Your task to perform on an android device: Search for pizza restaurants on Maps Image 0: 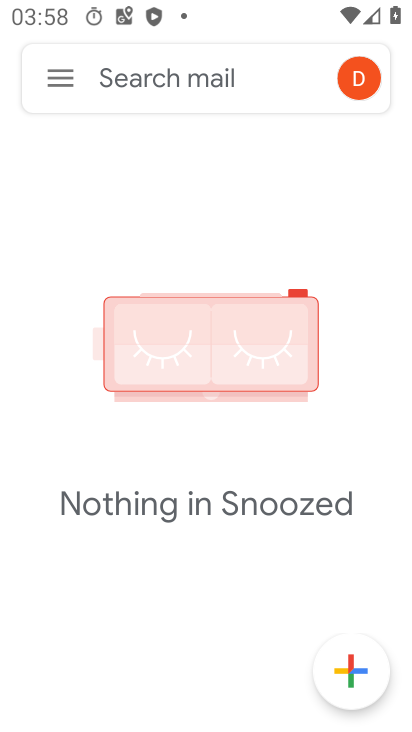
Step 0: press home button
Your task to perform on an android device: Search for pizza restaurants on Maps Image 1: 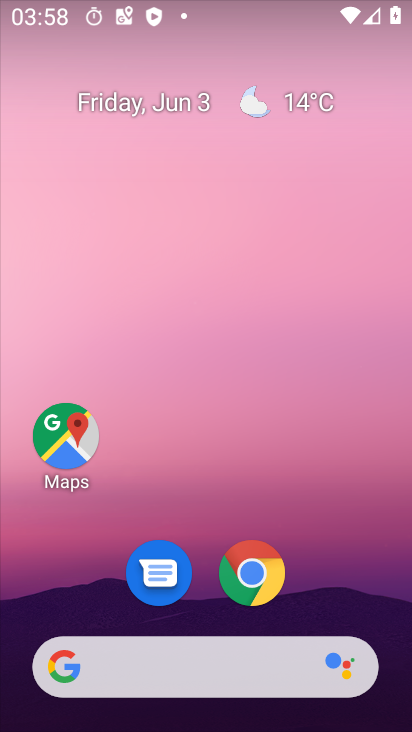
Step 1: drag from (195, 677) to (266, 1)
Your task to perform on an android device: Search for pizza restaurants on Maps Image 2: 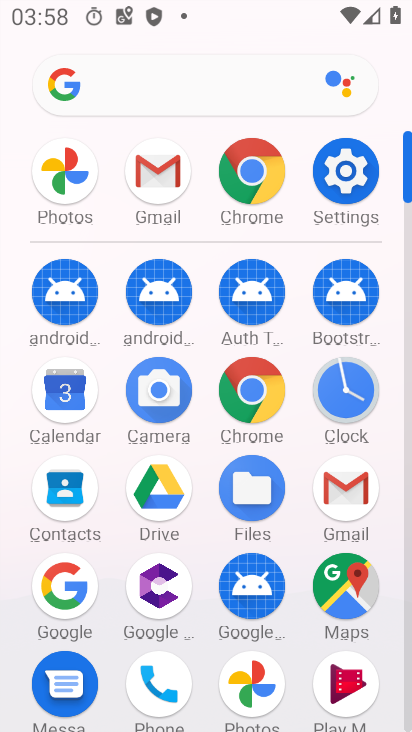
Step 2: click (338, 596)
Your task to perform on an android device: Search for pizza restaurants on Maps Image 3: 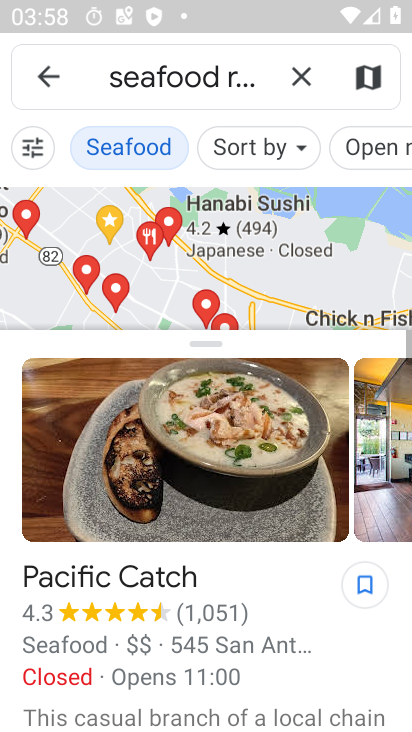
Step 3: click (307, 82)
Your task to perform on an android device: Search for pizza restaurants on Maps Image 4: 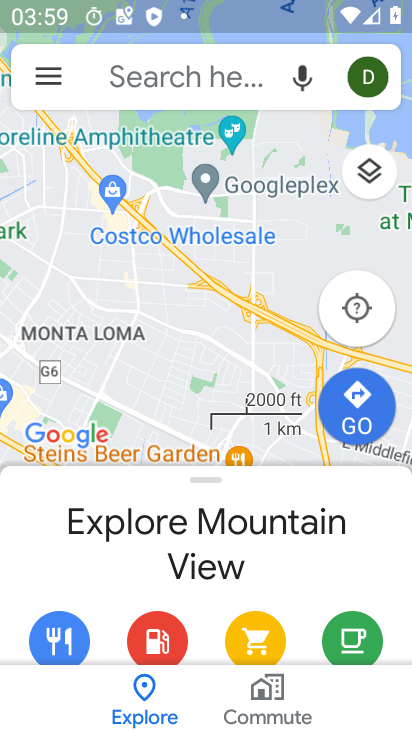
Step 4: click (214, 80)
Your task to perform on an android device: Search for pizza restaurants on Maps Image 5: 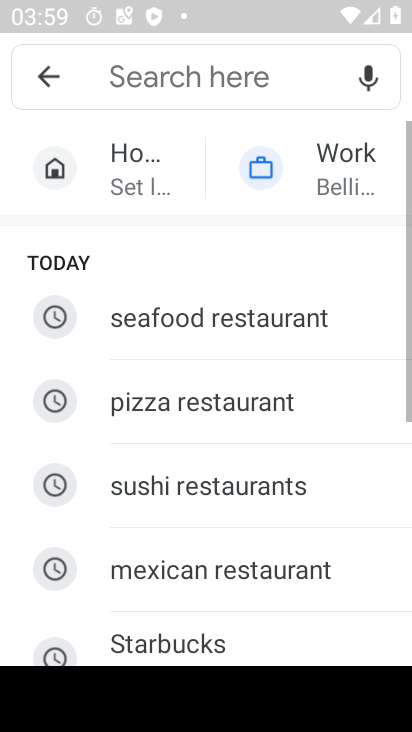
Step 5: click (223, 414)
Your task to perform on an android device: Search for pizza restaurants on Maps Image 6: 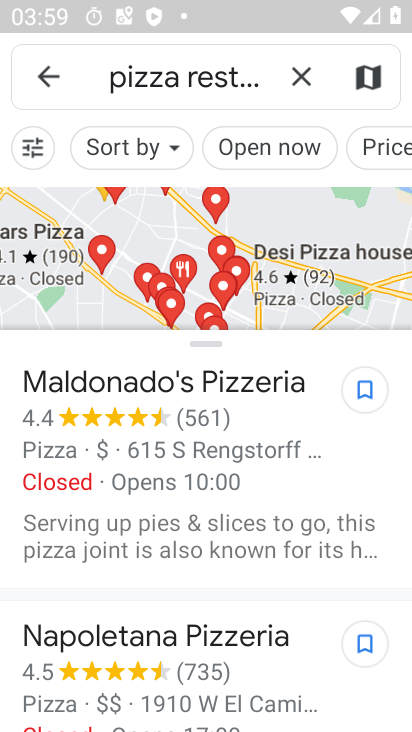
Step 6: task complete